Your task to perform on an android device: turn off smart reply in the gmail app Image 0: 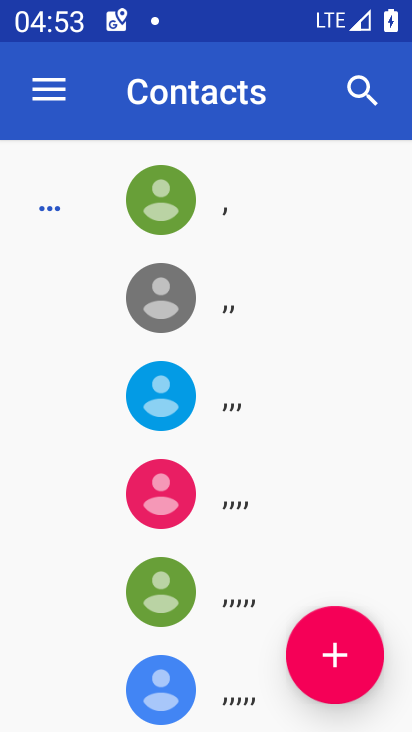
Step 0: press home button
Your task to perform on an android device: turn off smart reply in the gmail app Image 1: 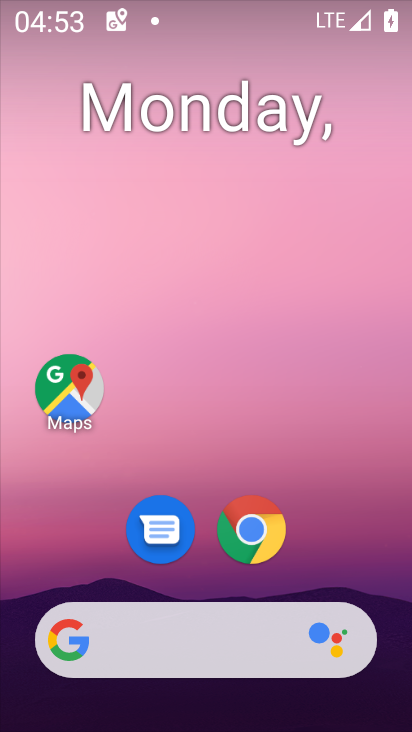
Step 1: drag from (371, 593) to (246, 191)
Your task to perform on an android device: turn off smart reply in the gmail app Image 2: 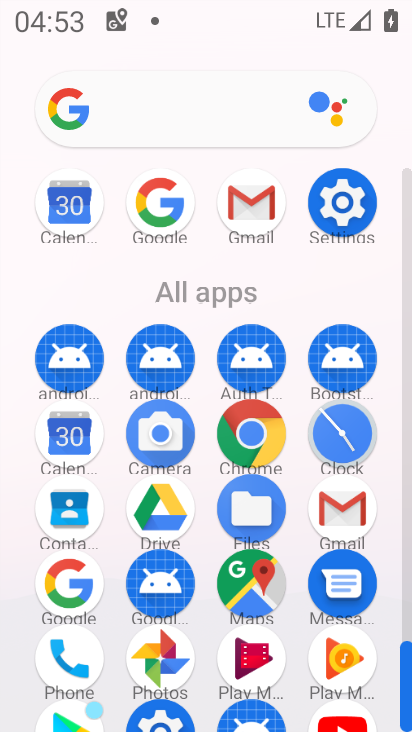
Step 2: click (251, 207)
Your task to perform on an android device: turn off smart reply in the gmail app Image 3: 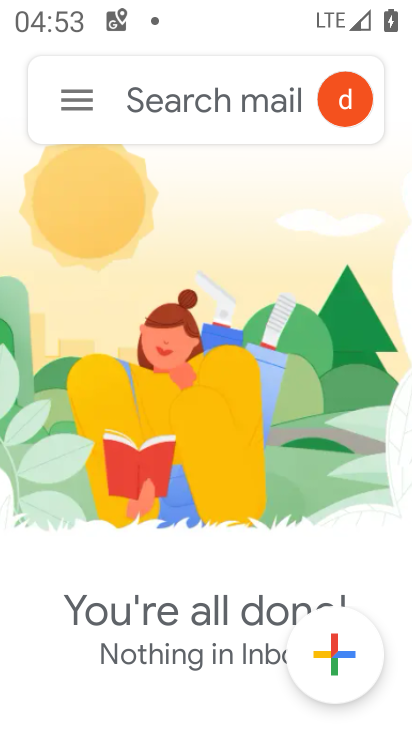
Step 3: click (55, 98)
Your task to perform on an android device: turn off smart reply in the gmail app Image 4: 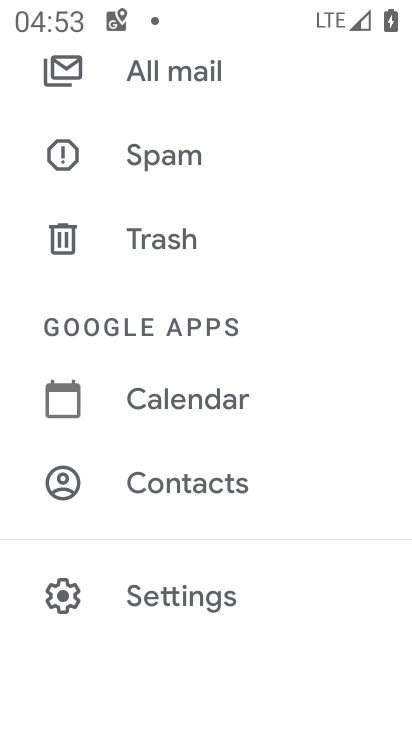
Step 4: click (236, 603)
Your task to perform on an android device: turn off smart reply in the gmail app Image 5: 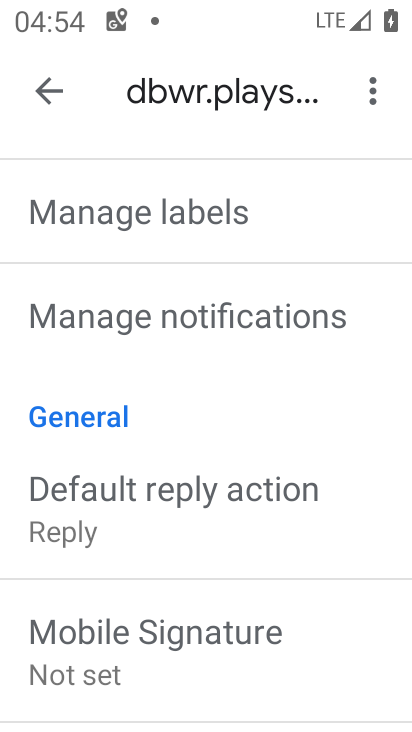
Step 5: drag from (267, 662) to (218, 17)
Your task to perform on an android device: turn off smart reply in the gmail app Image 6: 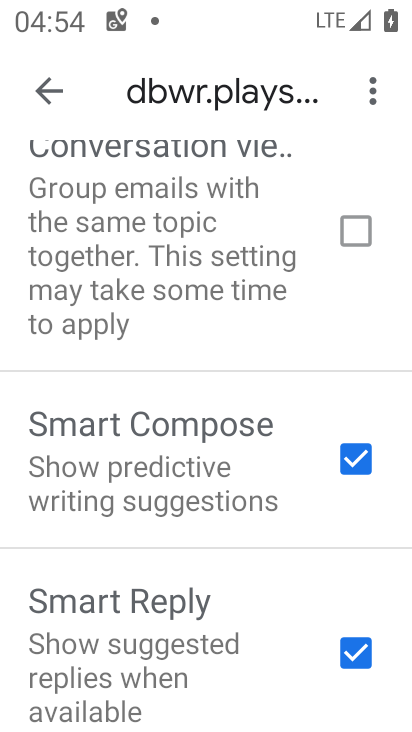
Step 6: click (355, 665)
Your task to perform on an android device: turn off smart reply in the gmail app Image 7: 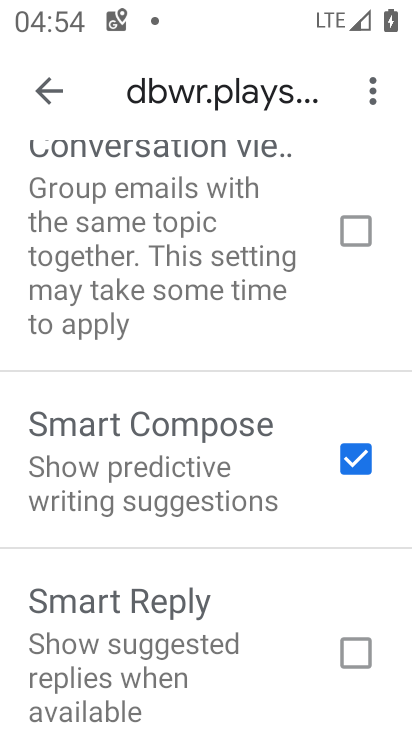
Step 7: task complete